Your task to perform on an android device: Go to CNN.com Image 0: 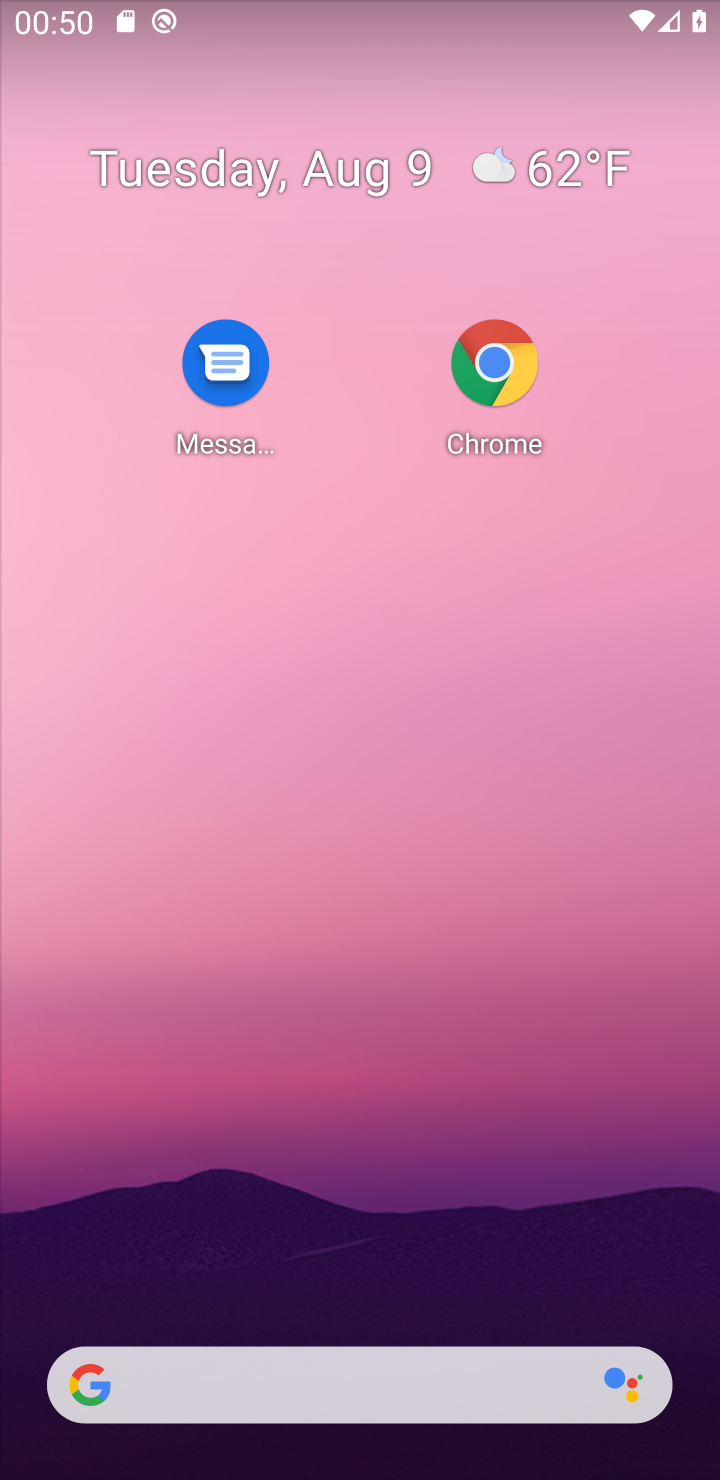
Step 0: drag from (383, 1175) to (495, 357)
Your task to perform on an android device: Go to CNN.com Image 1: 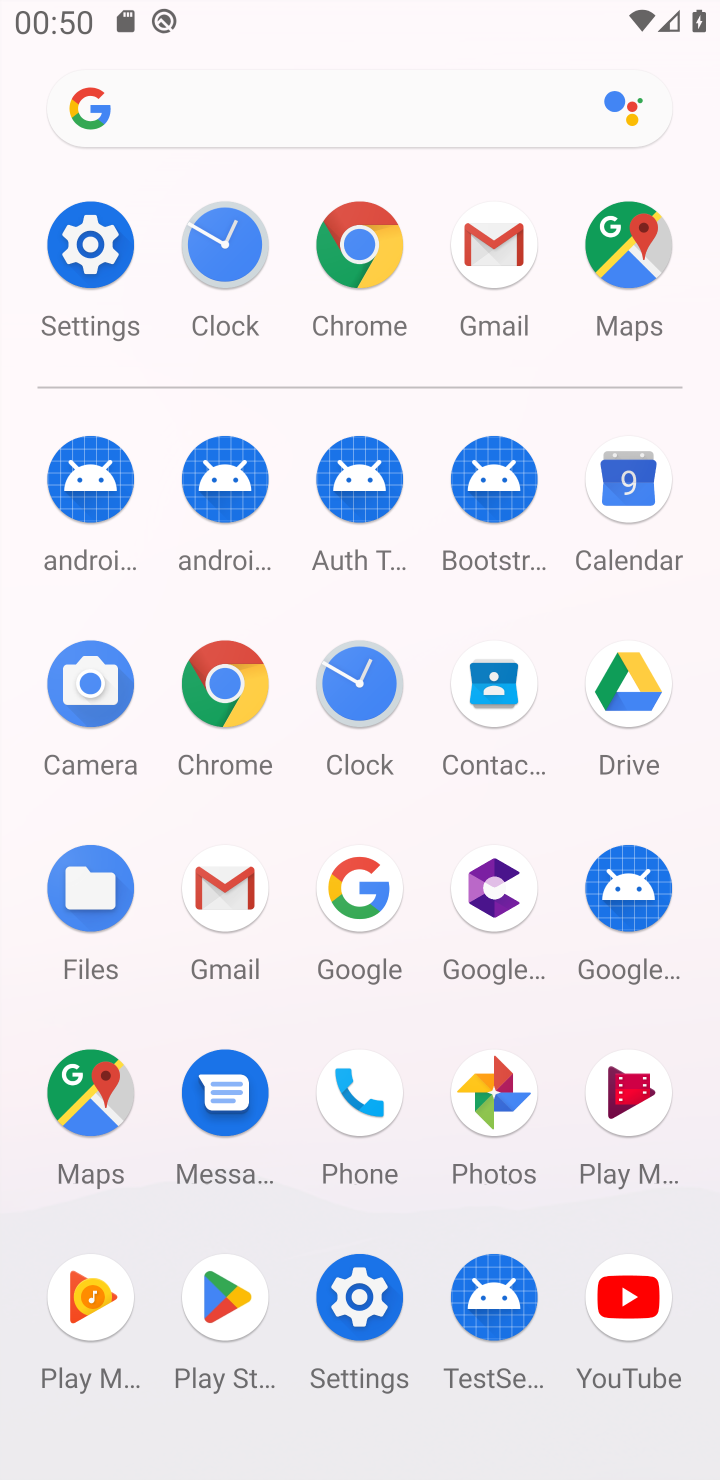
Step 1: click (244, 686)
Your task to perform on an android device: Go to CNN.com Image 2: 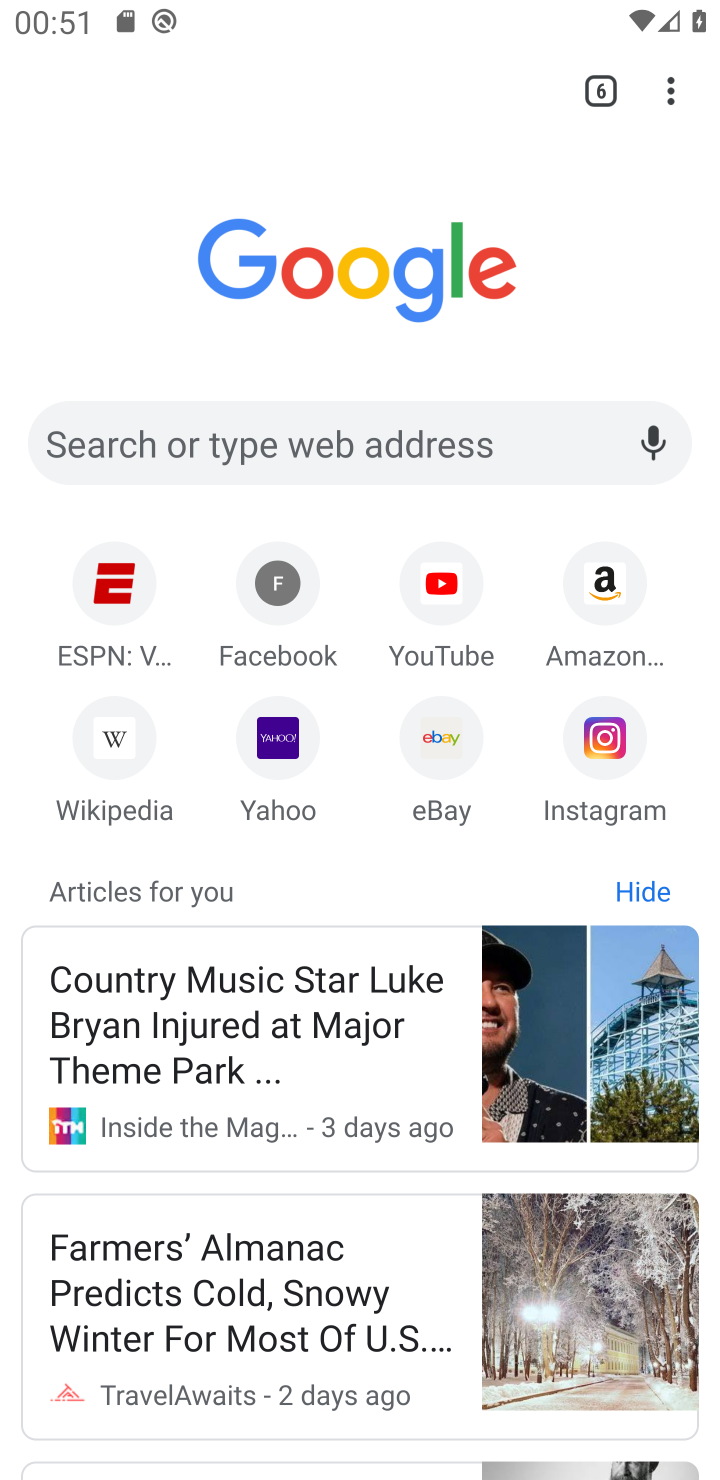
Step 2: click (291, 436)
Your task to perform on an android device: Go to CNN.com Image 3: 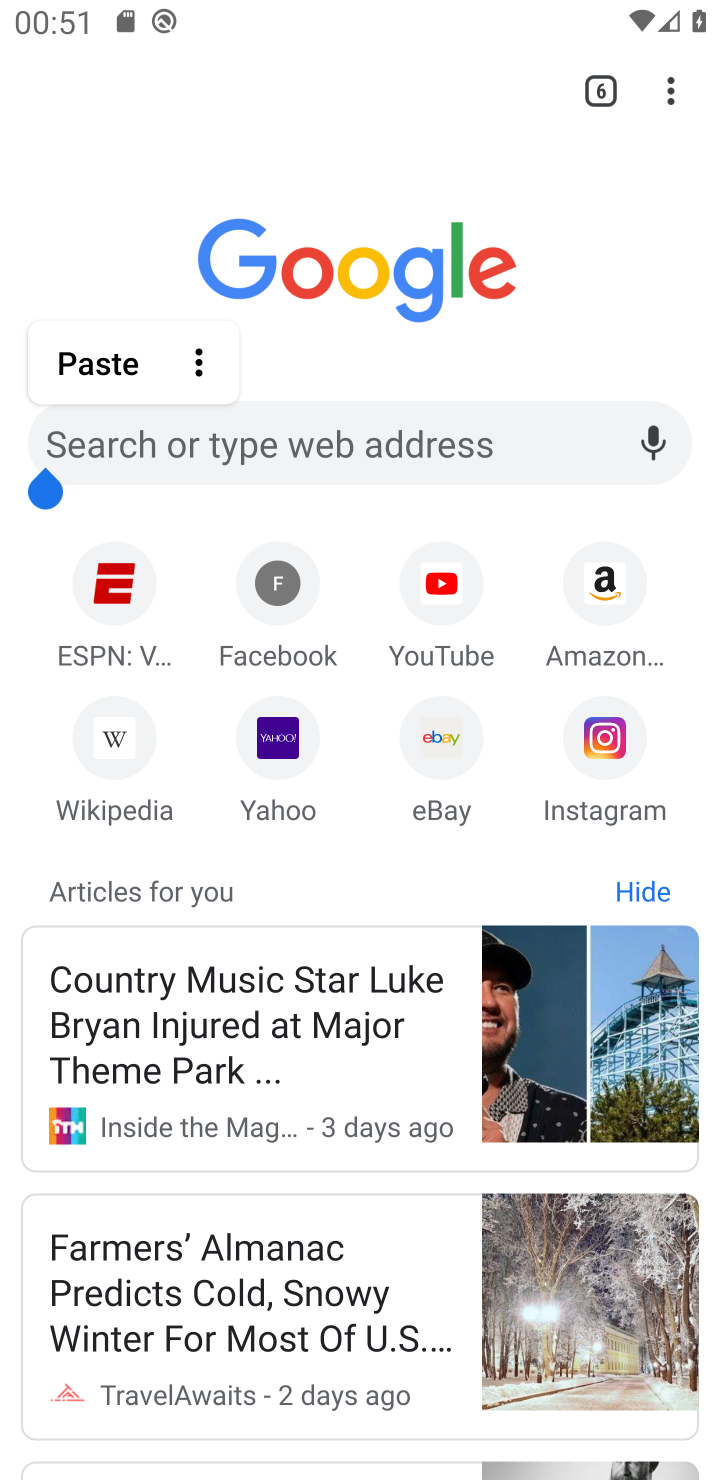
Step 3: type "cnn "
Your task to perform on an android device: Go to CNN.com Image 4: 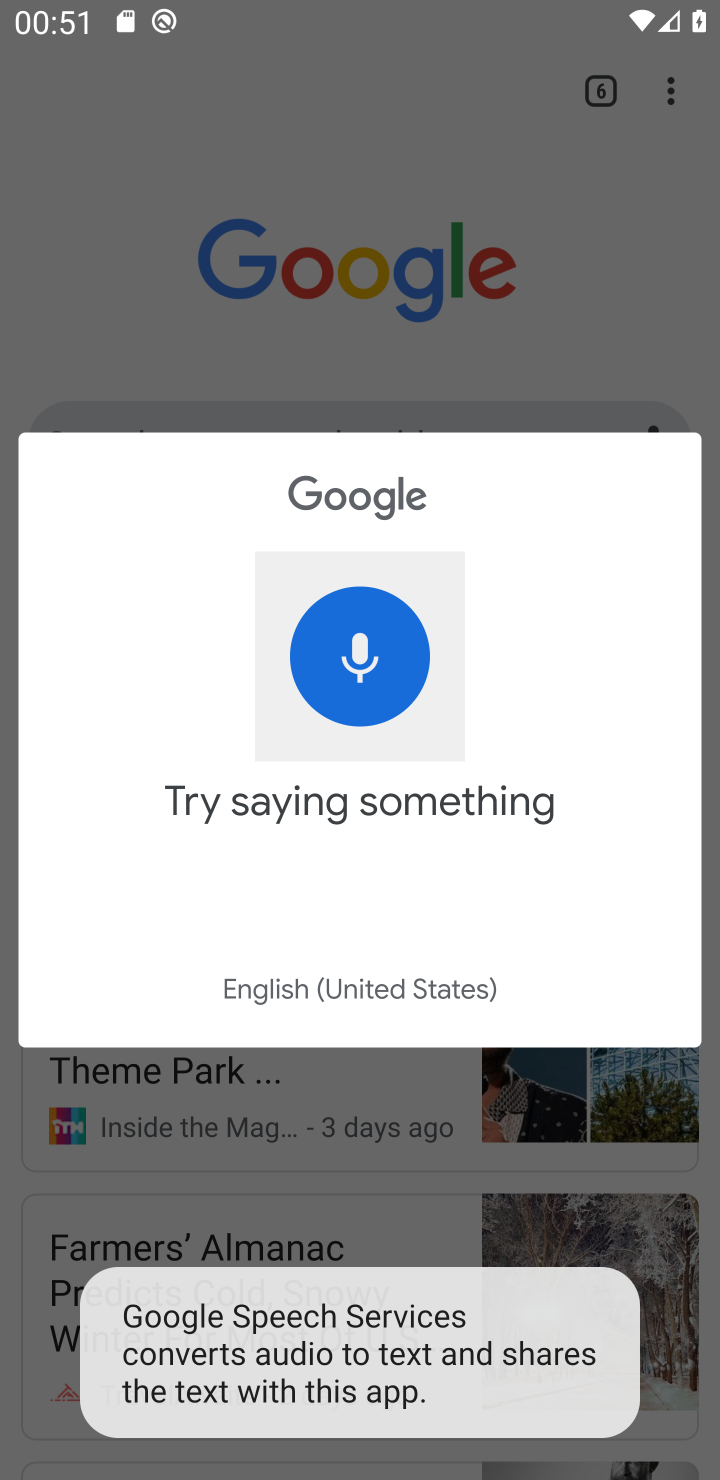
Step 4: click (274, 304)
Your task to perform on an android device: Go to CNN.com Image 5: 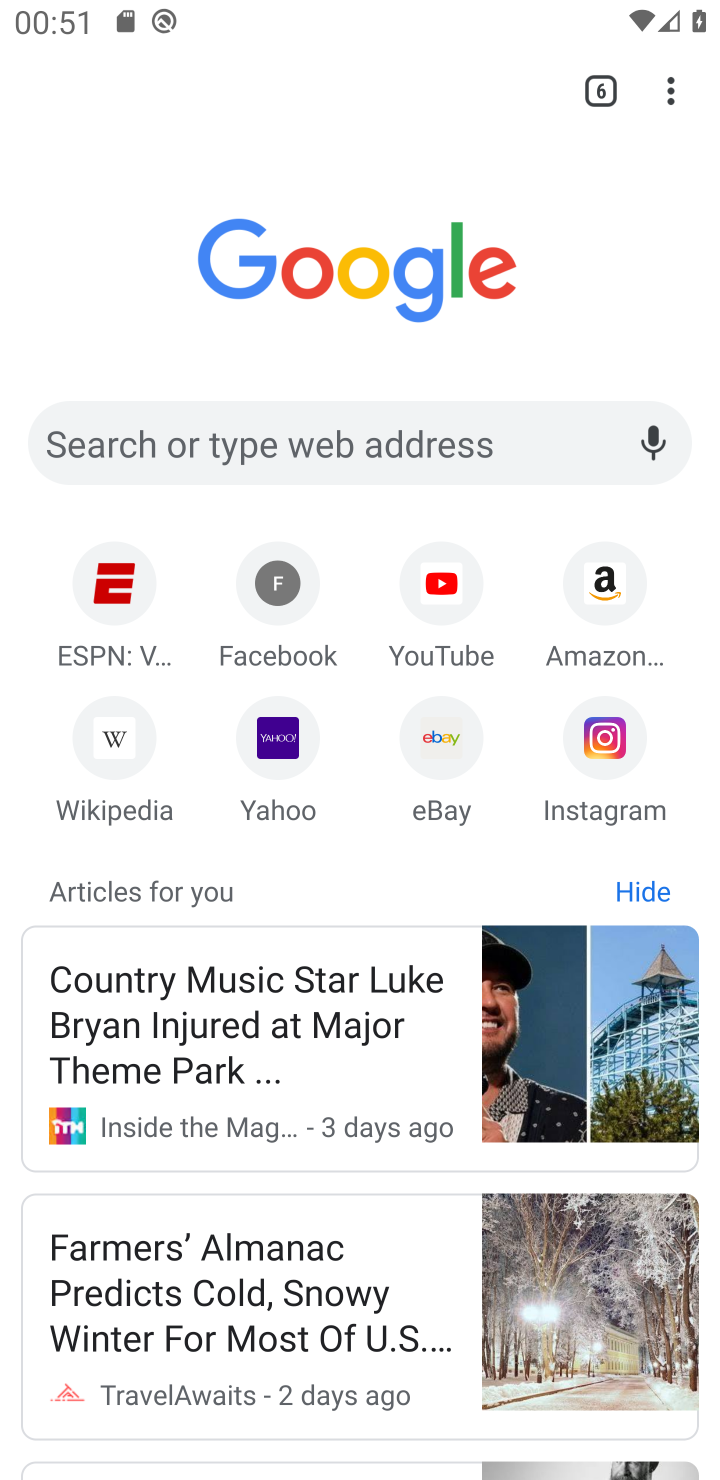
Step 5: click (311, 422)
Your task to perform on an android device: Go to CNN.com Image 6: 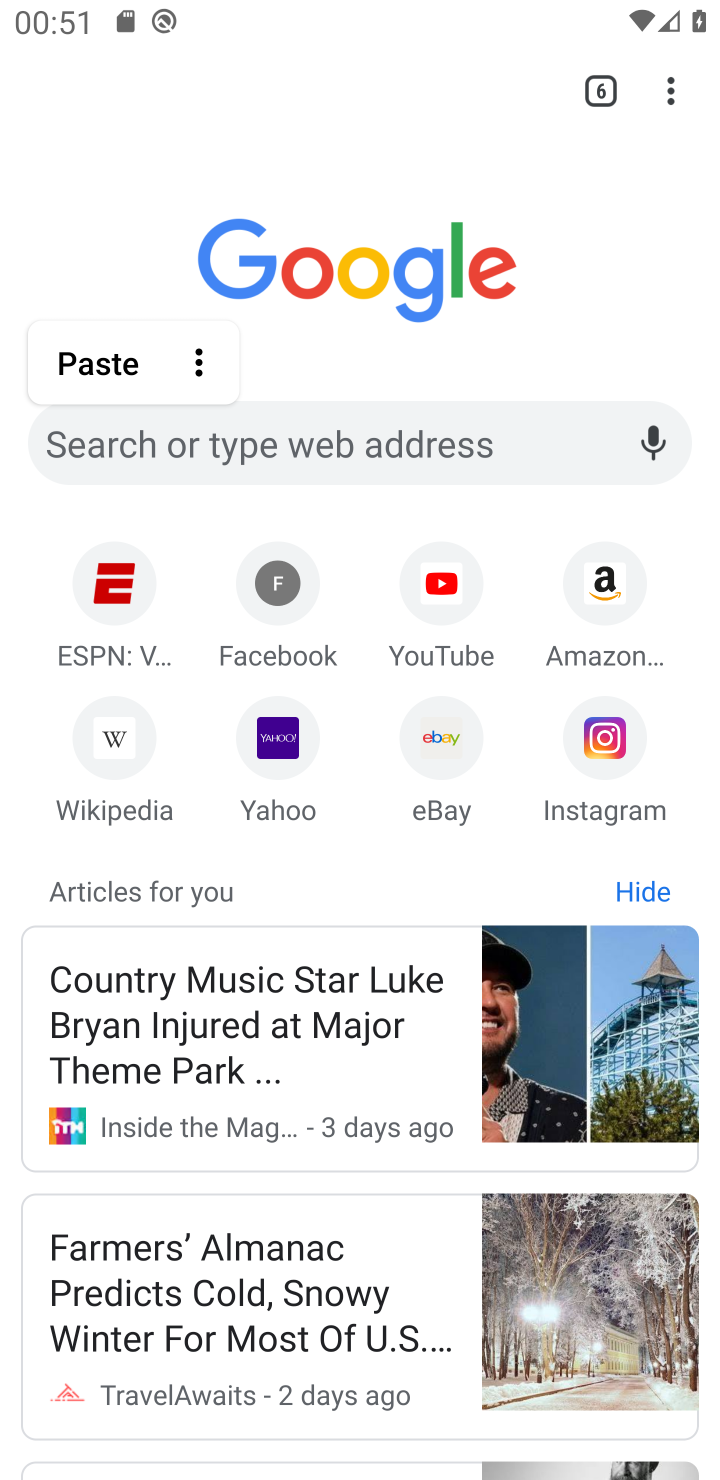
Step 6: type "cnn"
Your task to perform on an android device: Go to CNN.com Image 7: 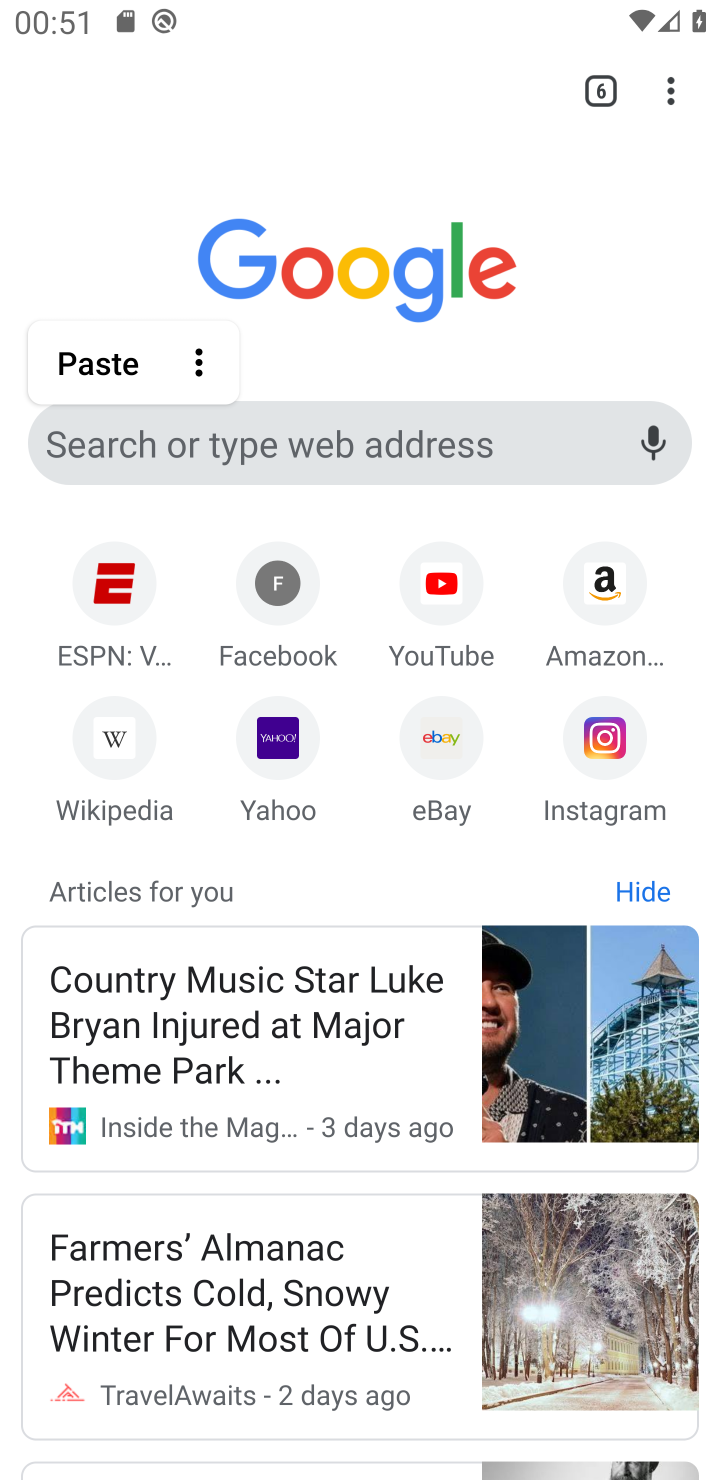
Step 7: click (300, 435)
Your task to perform on an android device: Go to CNN.com Image 8: 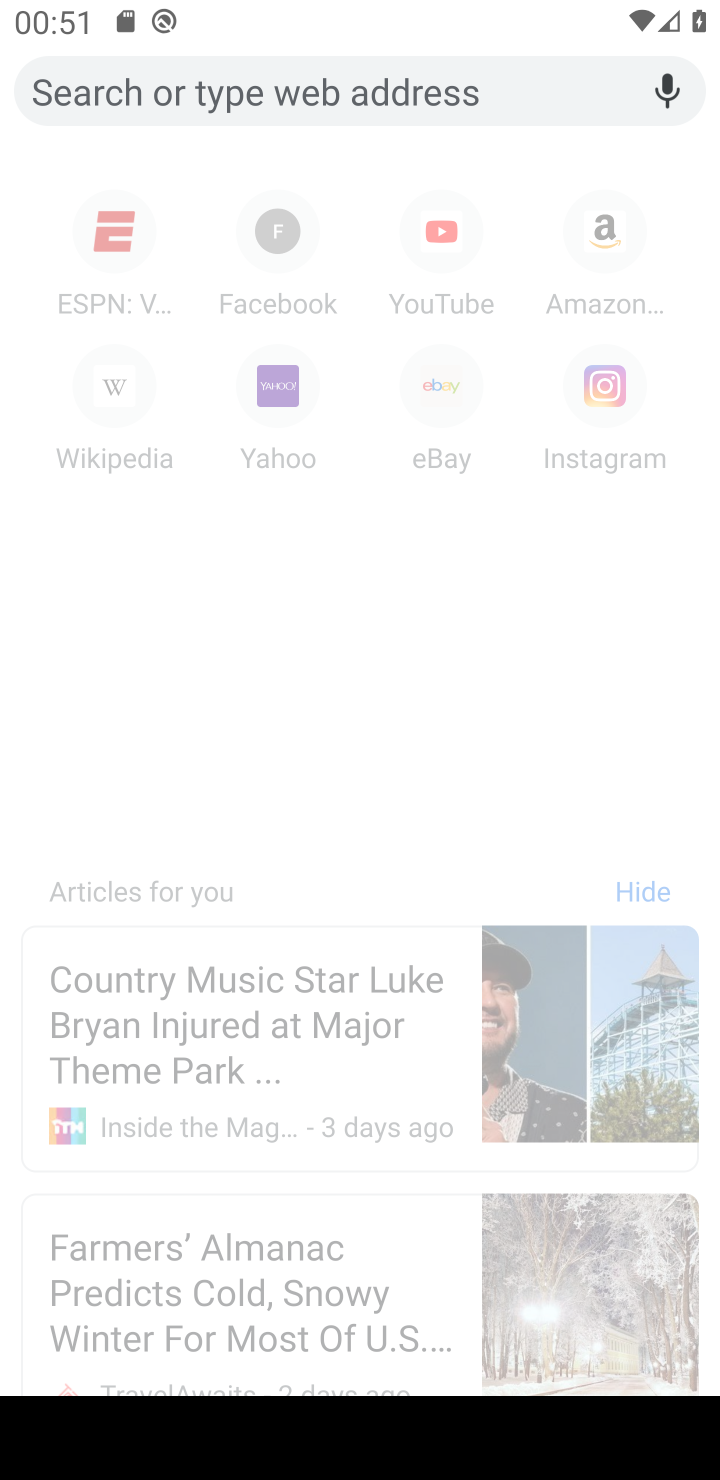
Step 8: click (221, 78)
Your task to perform on an android device: Go to CNN.com Image 9: 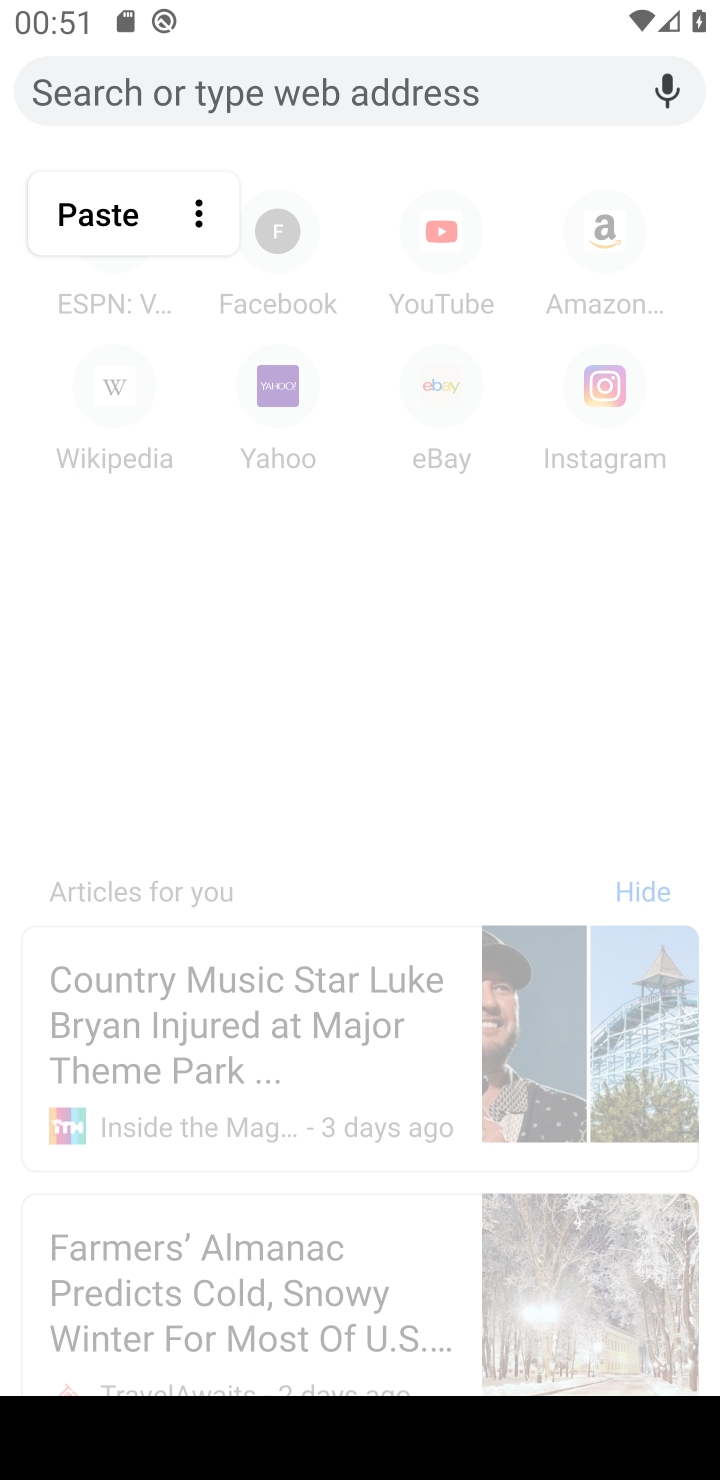
Step 9: type "cnn "
Your task to perform on an android device: Go to CNN.com Image 10: 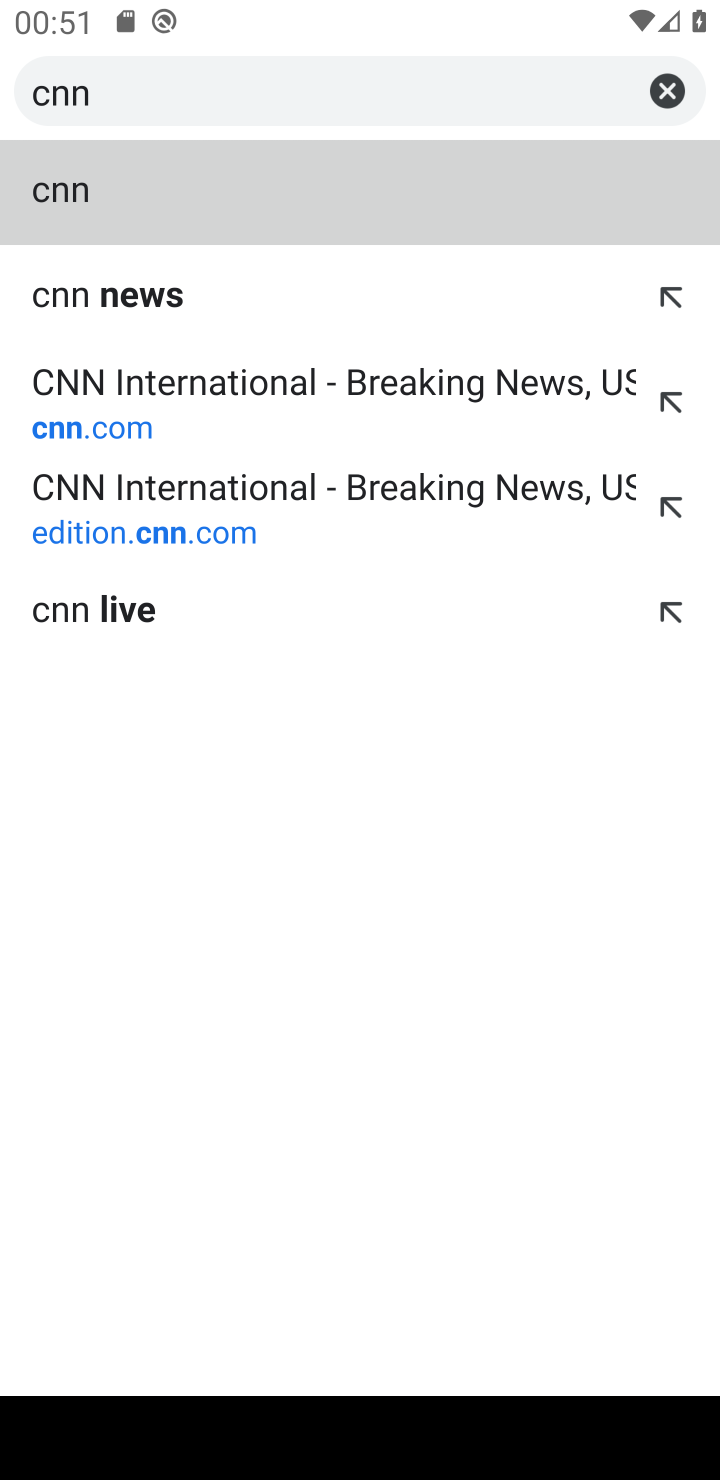
Step 10: click (186, 290)
Your task to perform on an android device: Go to CNN.com Image 11: 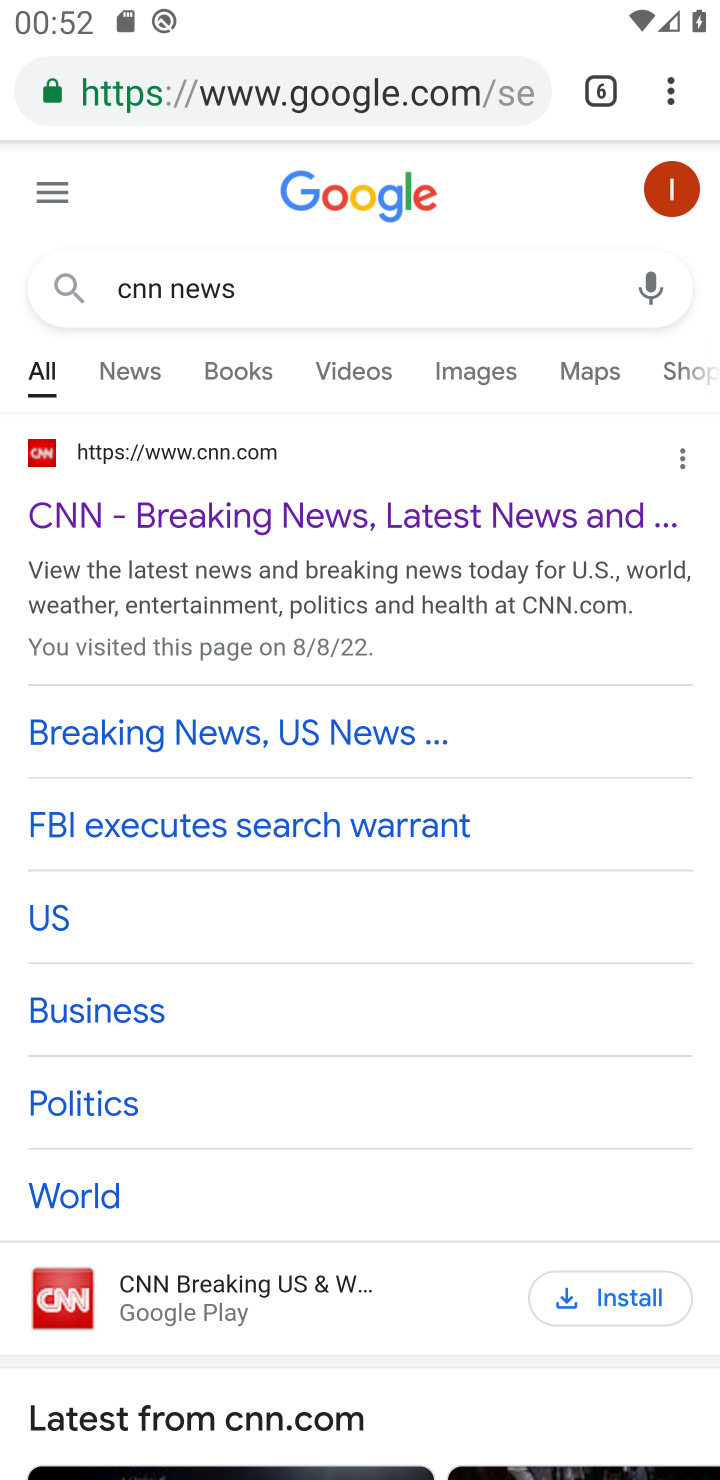
Step 11: task complete